Your task to perform on an android device: open the mobile data screen to see how much data has been used Image 0: 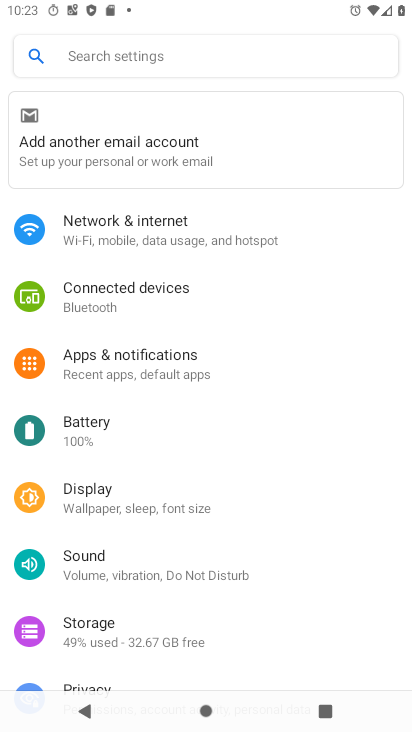
Step 0: click (149, 232)
Your task to perform on an android device: open the mobile data screen to see how much data has been used Image 1: 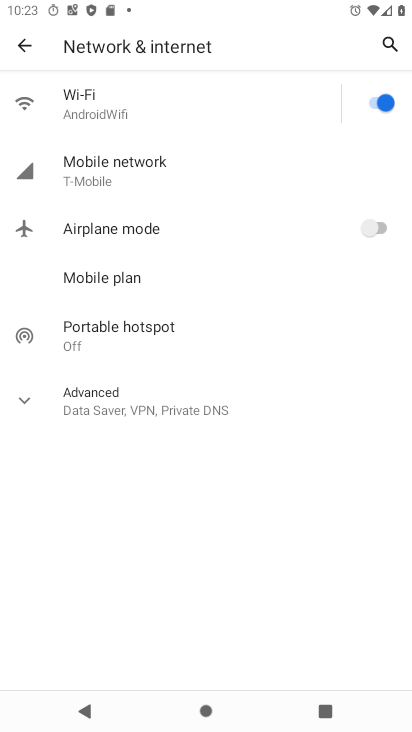
Step 1: click (124, 157)
Your task to perform on an android device: open the mobile data screen to see how much data has been used Image 2: 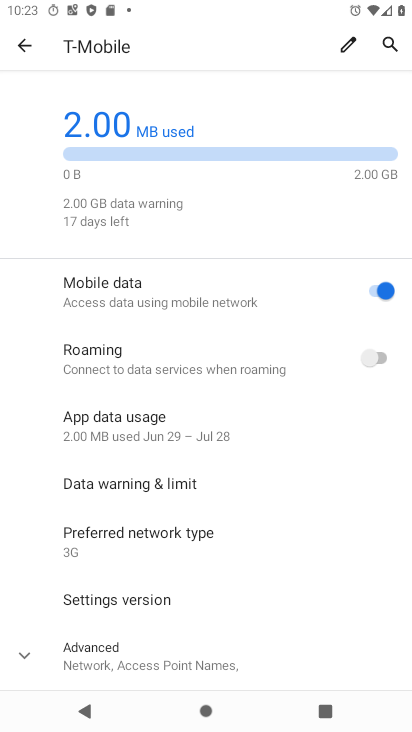
Step 2: click (140, 416)
Your task to perform on an android device: open the mobile data screen to see how much data has been used Image 3: 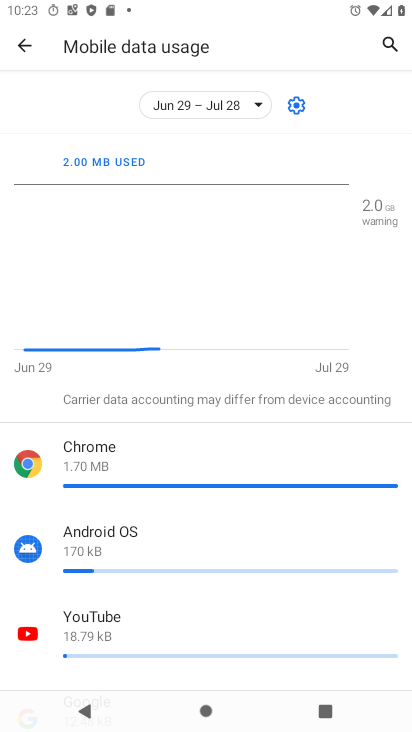
Step 3: task complete